Your task to perform on an android device: delete a single message in the gmail app Image 0: 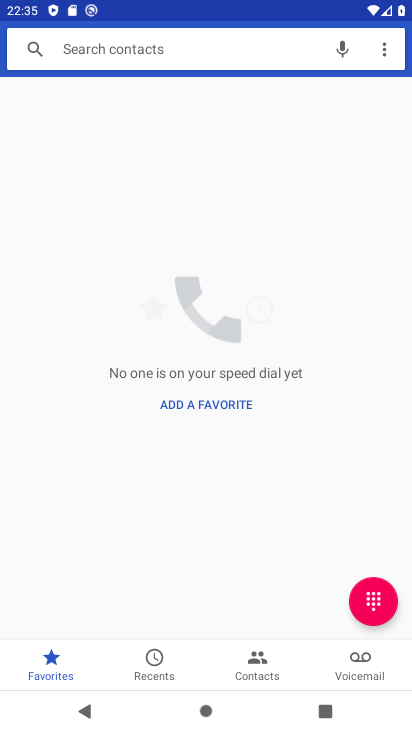
Step 0: drag from (356, 587) to (356, 220)
Your task to perform on an android device: delete a single message in the gmail app Image 1: 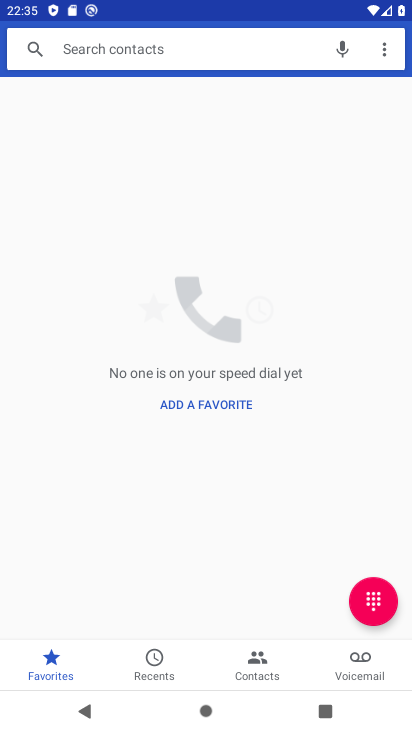
Step 1: press home button
Your task to perform on an android device: delete a single message in the gmail app Image 2: 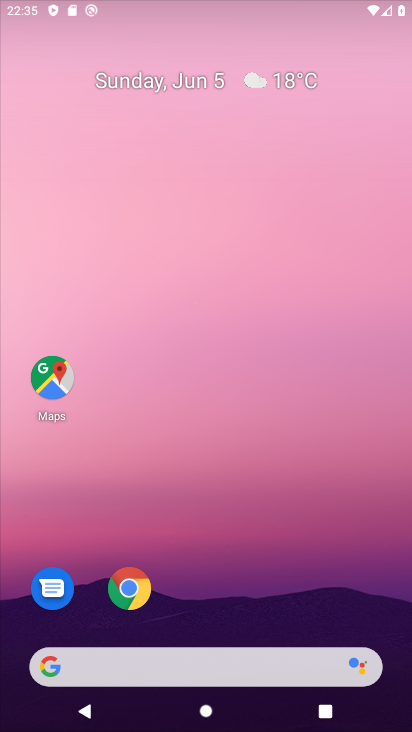
Step 2: drag from (299, 421) to (303, 142)
Your task to perform on an android device: delete a single message in the gmail app Image 3: 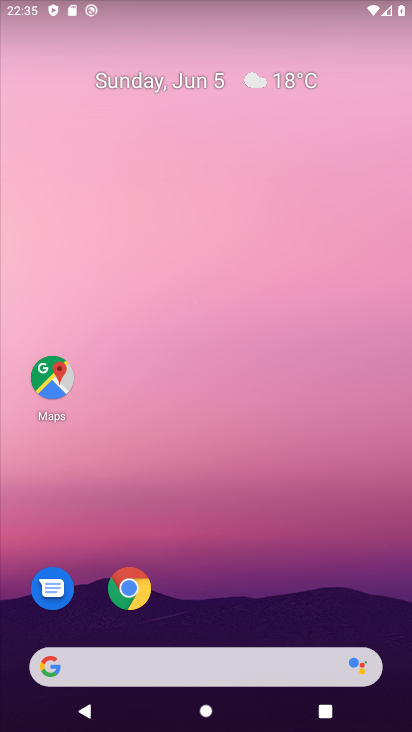
Step 3: drag from (222, 629) to (299, 206)
Your task to perform on an android device: delete a single message in the gmail app Image 4: 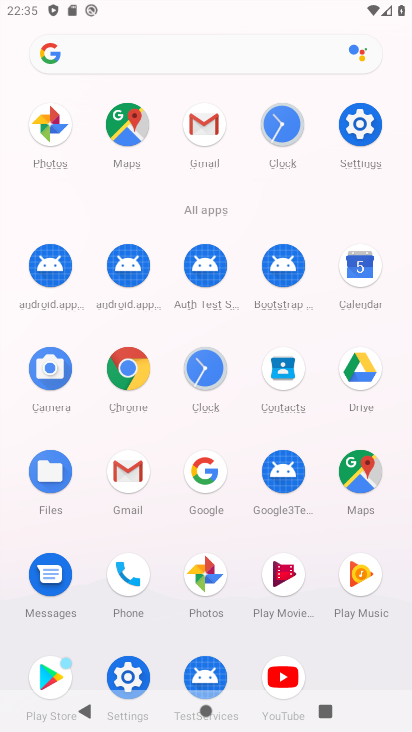
Step 4: click (134, 491)
Your task to perform on an android device: delete a single message in the gmail app Image 5: 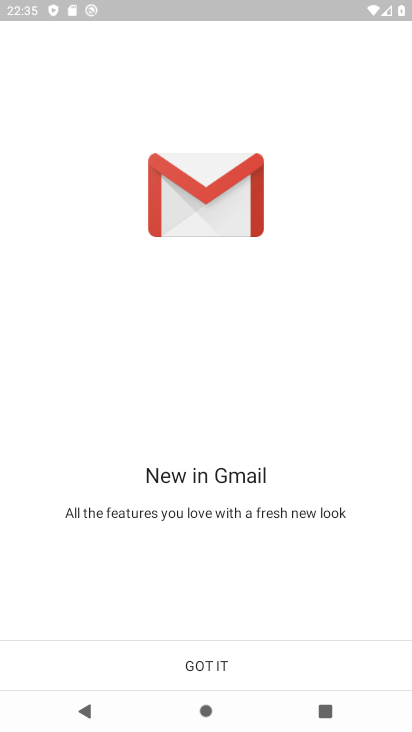
Step 5: click (189, 668)
Your task to perform on an android device: delete a single message in the gmail app Image 6: 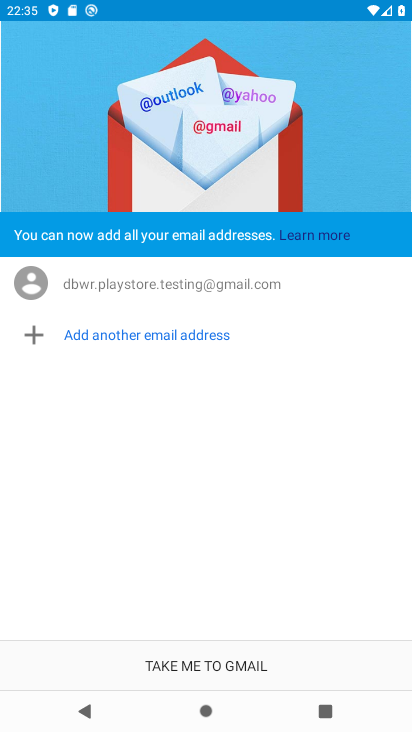
Step 6: click (219, 667)
Your task to perform on an android device: delete a single message in the gmail app Image 7: 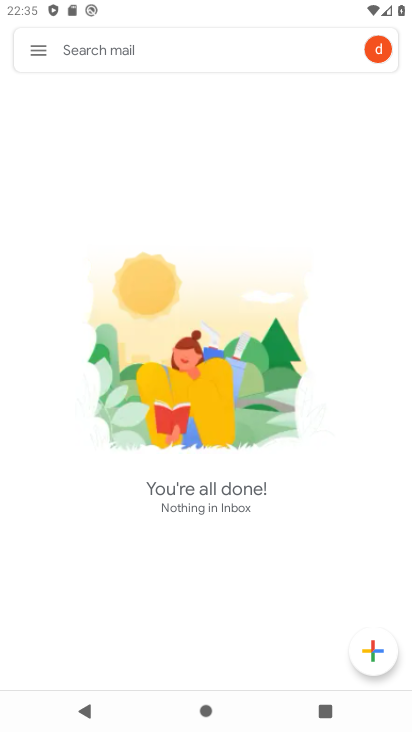
Step 7: click (38, 23)
Your task to perform on an android device: delete a single message in the gmail app Image 8: 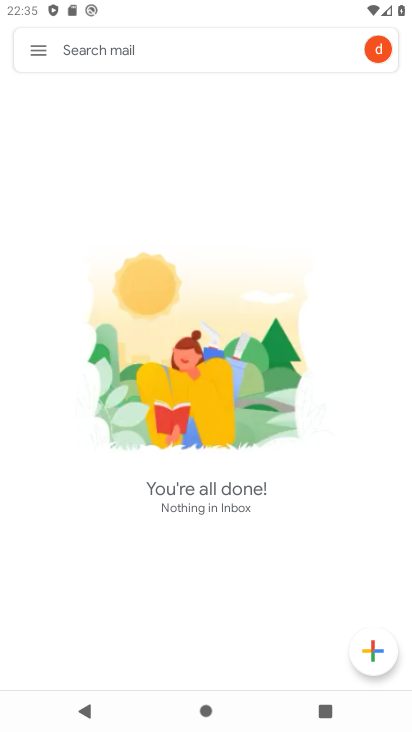
Step 8: click (36, 57)
Your task to perform on an android device: delete a single message in the gmail app Image 9: 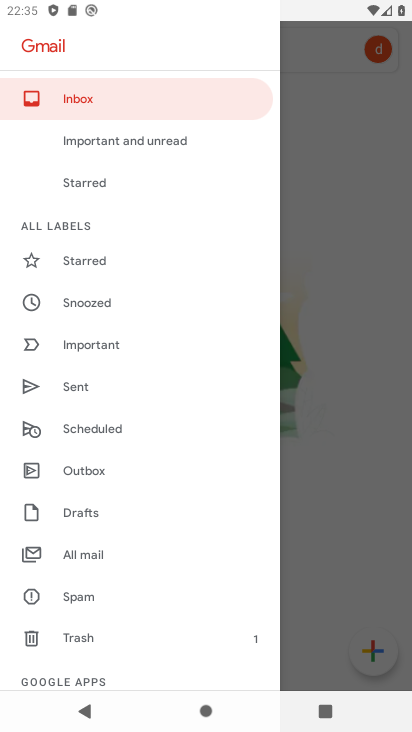
Step 9: click (97, 560)
Your task to perform on an android device: delete a single message in the gmail app Image 10: 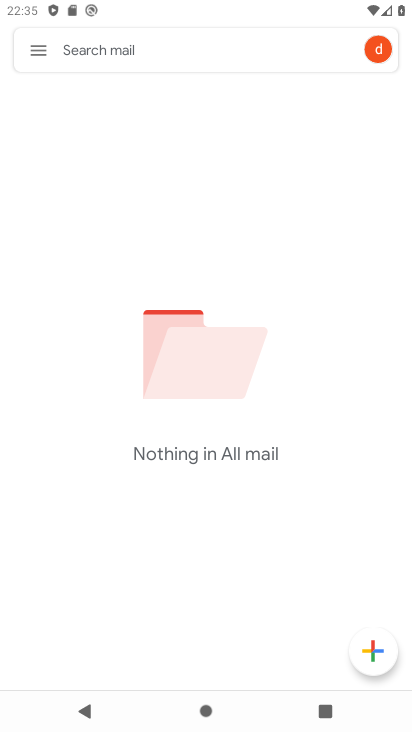
Step 10: task complete